Your task to perform on an android device: Clear the shopping cart on costco. Add razer deathadder to the cart on costco, then select checkout. Image 0: 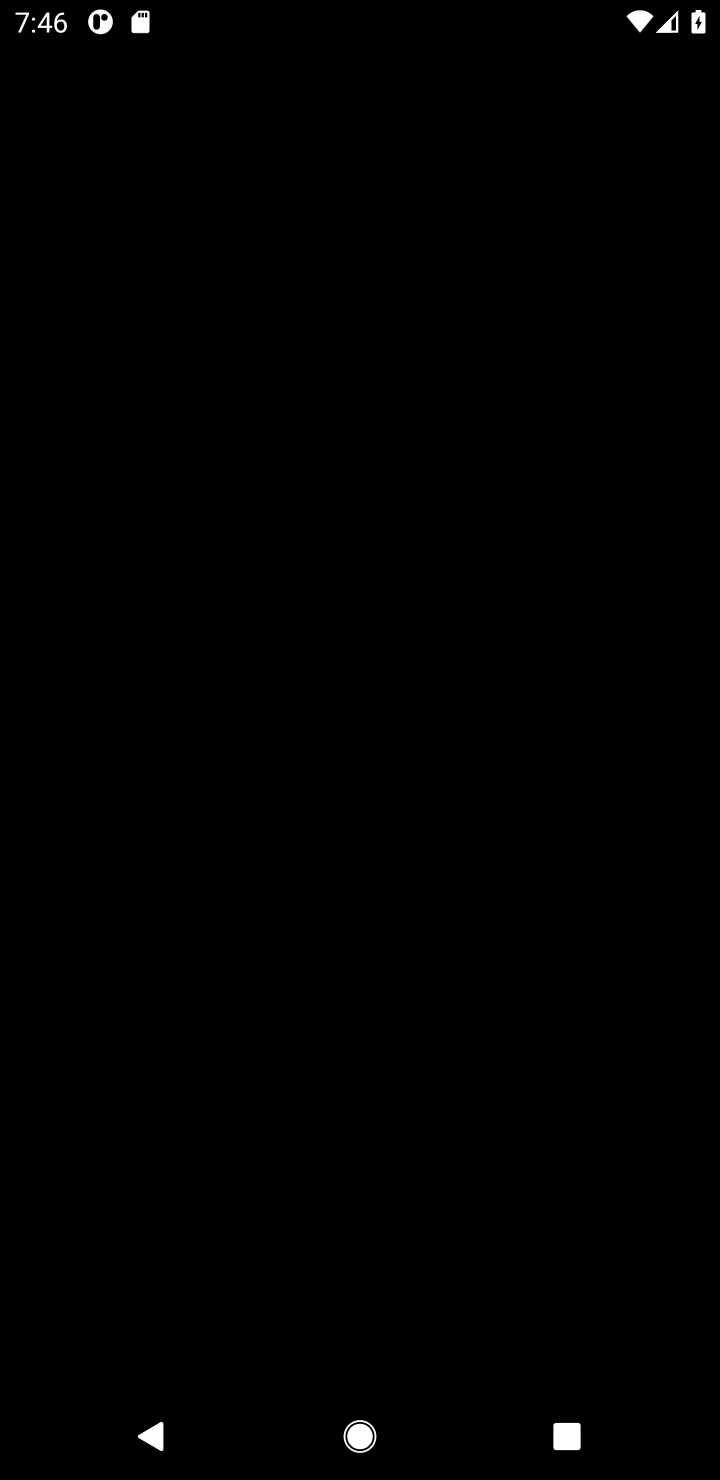
Step 0: press home button
Your task to perform on an android device: Clear the shopping cart on costco. Add razer deathadder to the cart on costco, then select checkout. Image 1: 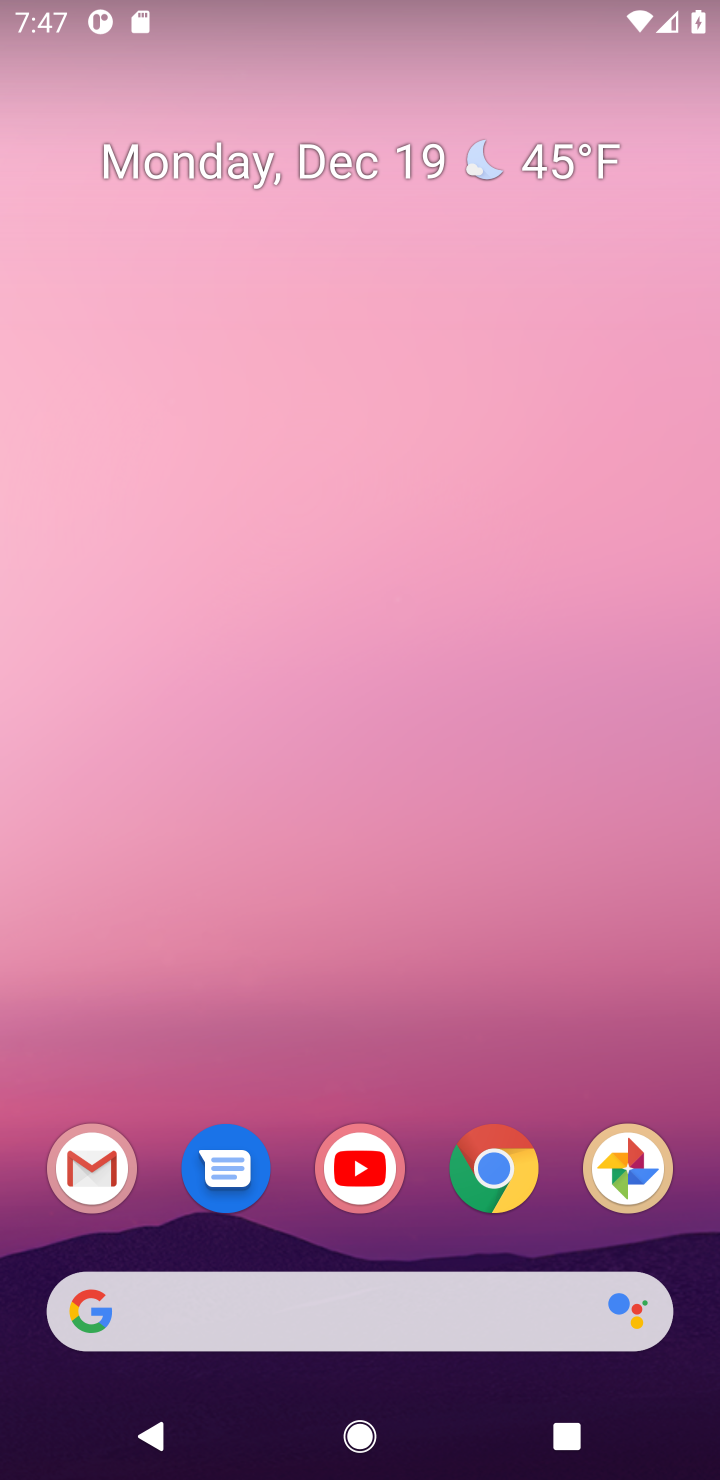
Step 1: click (497, 1171)
Your task to perform on an android device: Clear the shopping cart on costco. Add razer deathadder to the cart on costco, then select checkout. Image 2: 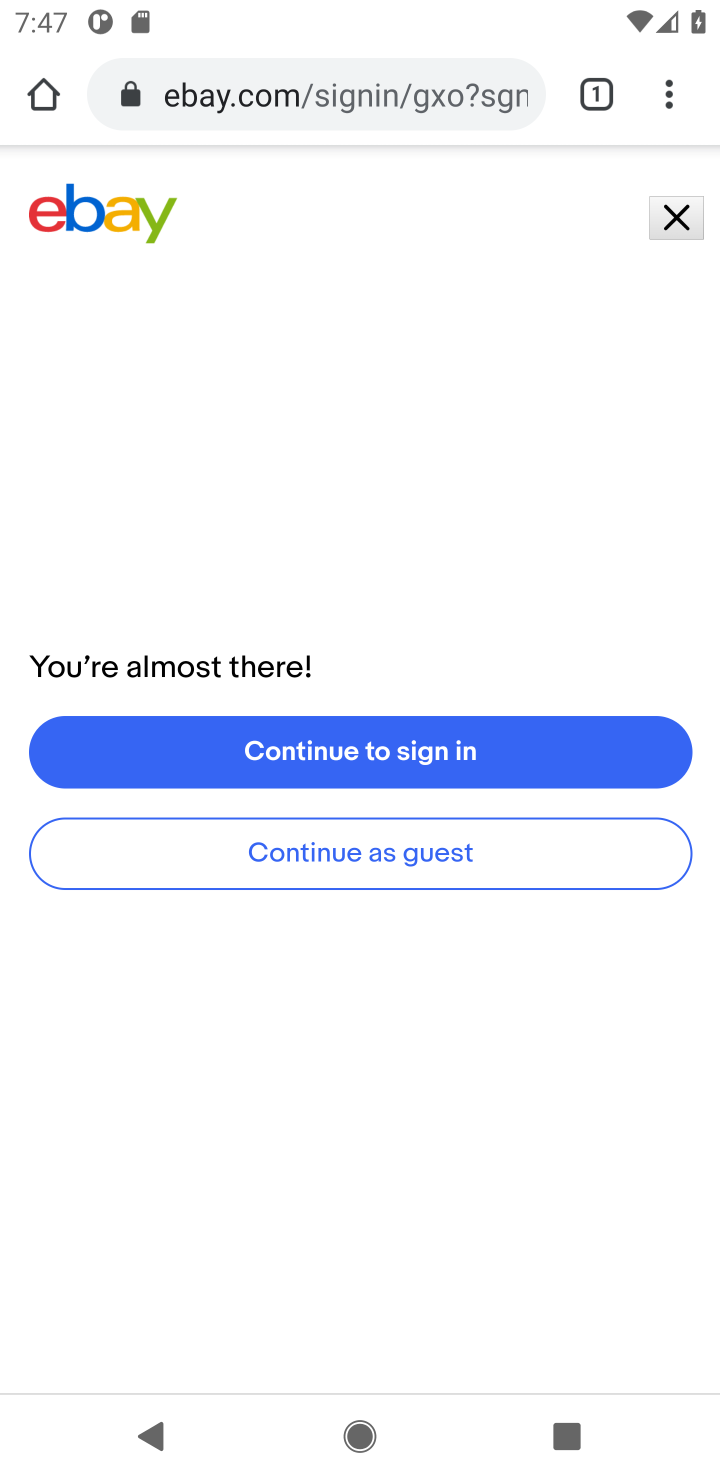
Step 2: click (249, 98)
Your task to perform on an android device: Clear the shopping cart on costco. Add razer deathadder to the cart on costco, then select checkout. Image 3: 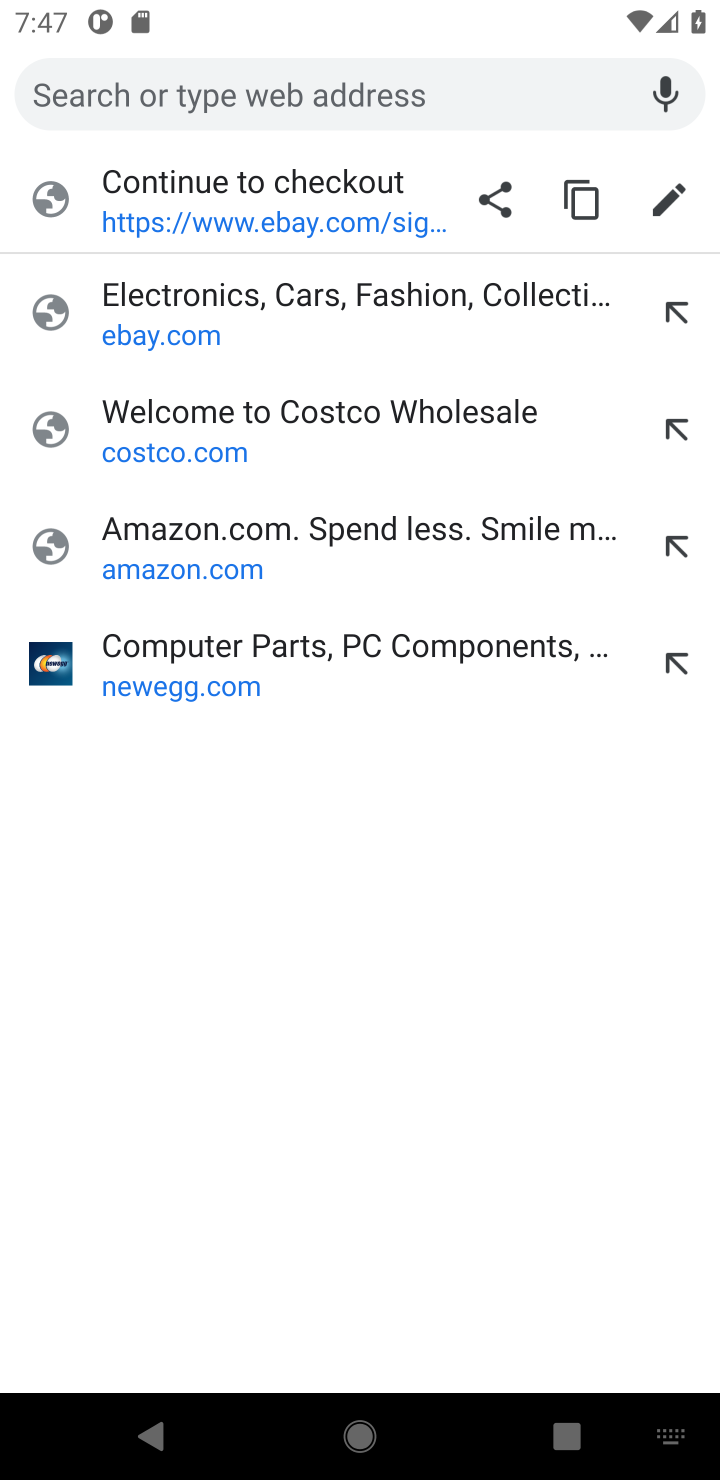
Step 3: click (138, 445)
Your task to perform on an android device: Clear the shopping cart on costco. Add razer deathadder to the cart on costco, then select checkout. Image 4: 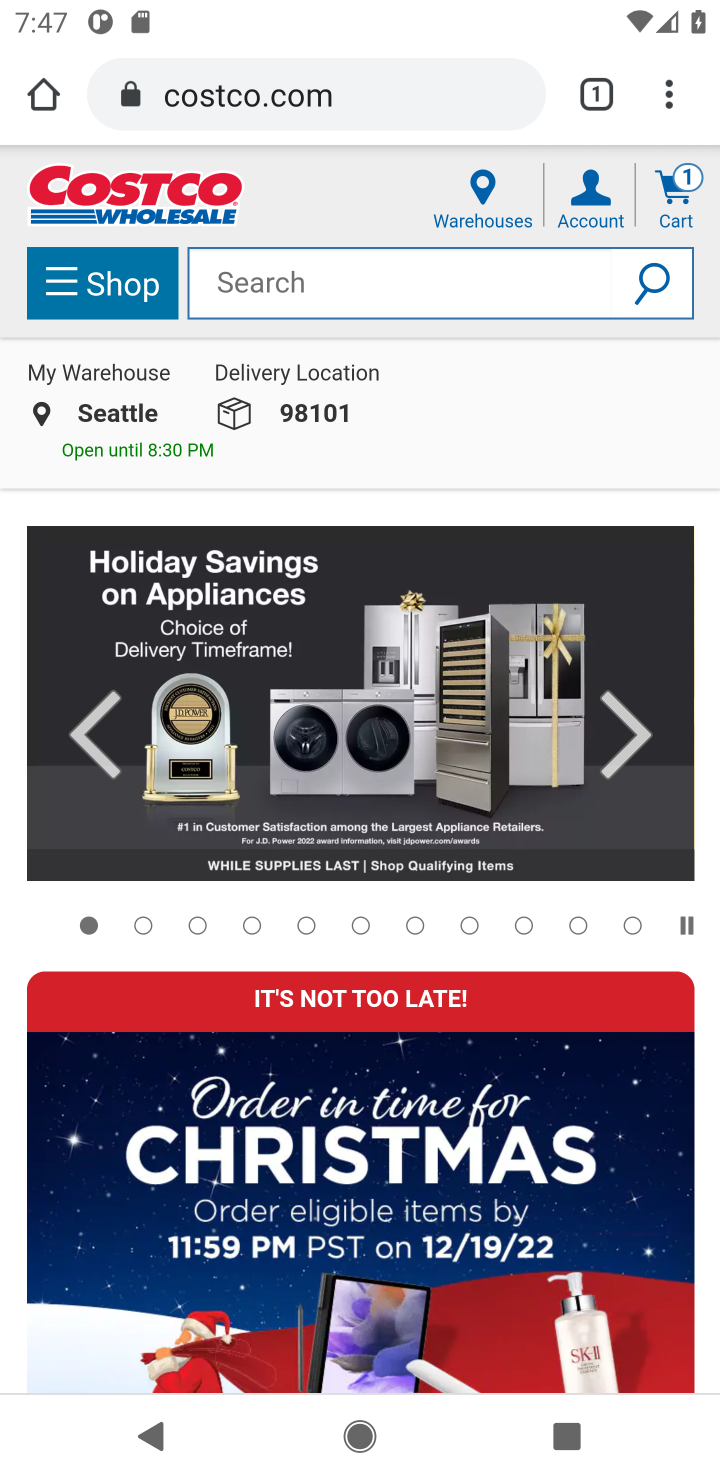
Step 4: click (670, 196)
Your task to perform on an android device: Clear the shopping cart on costco. Add razer deathadder to the cart on costco, then select checkout. Image 5: 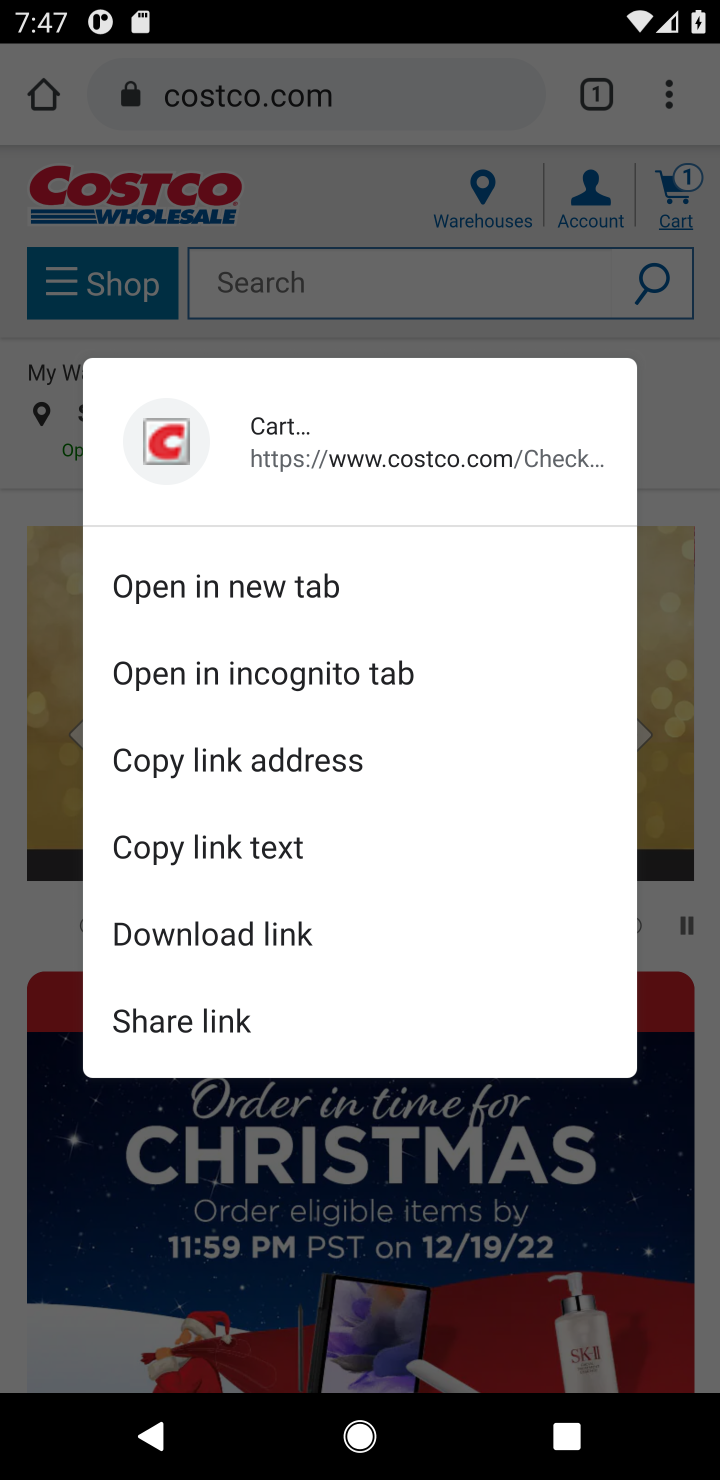
Step 5: click (673, 191)
Your task to perform on an android device: Clear the shopping cart on costco. Add razer deathadder to the cart on costco, then select checkout. Image 6: 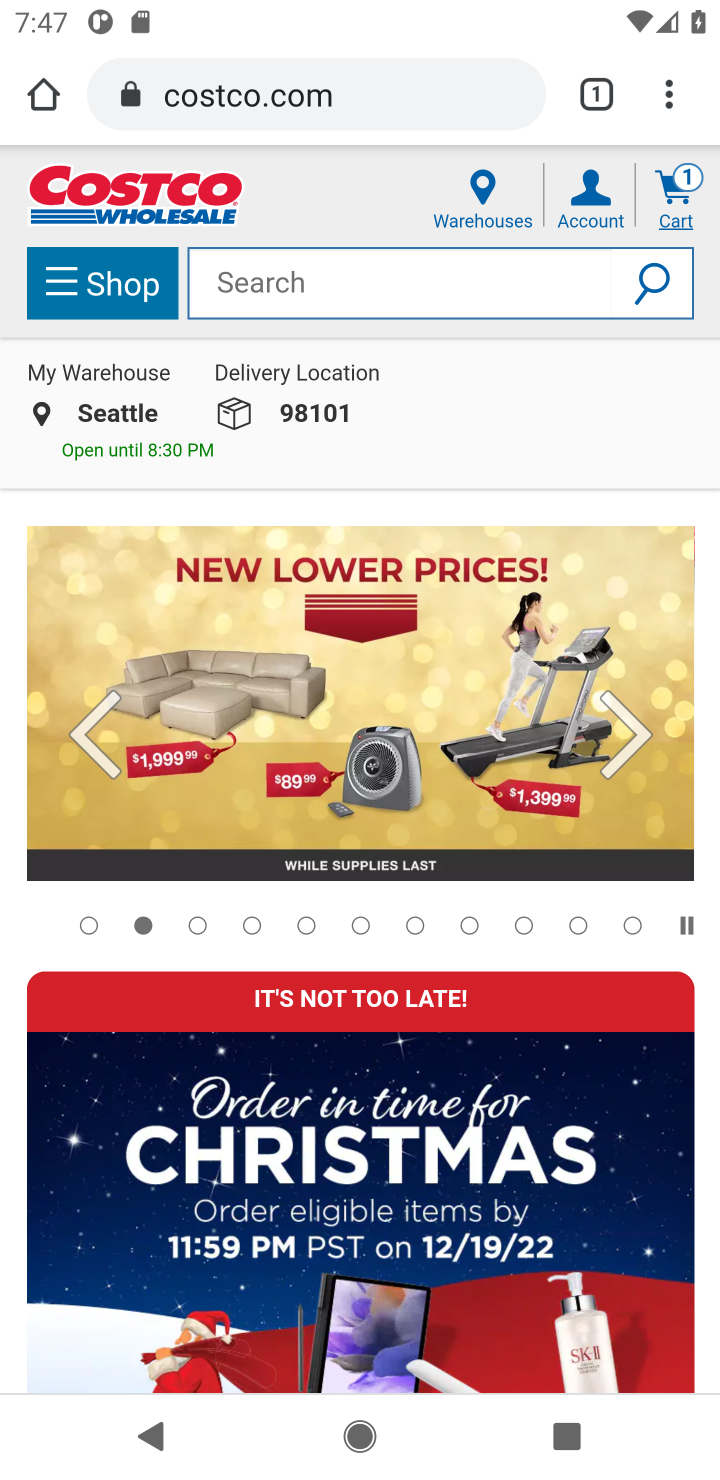
Step 6: click (670, 198)
Your task to perform on an android device: Clear the shopping cart on costco. Add razer deathadder to the cart on costco, then select checkout. Image 7: 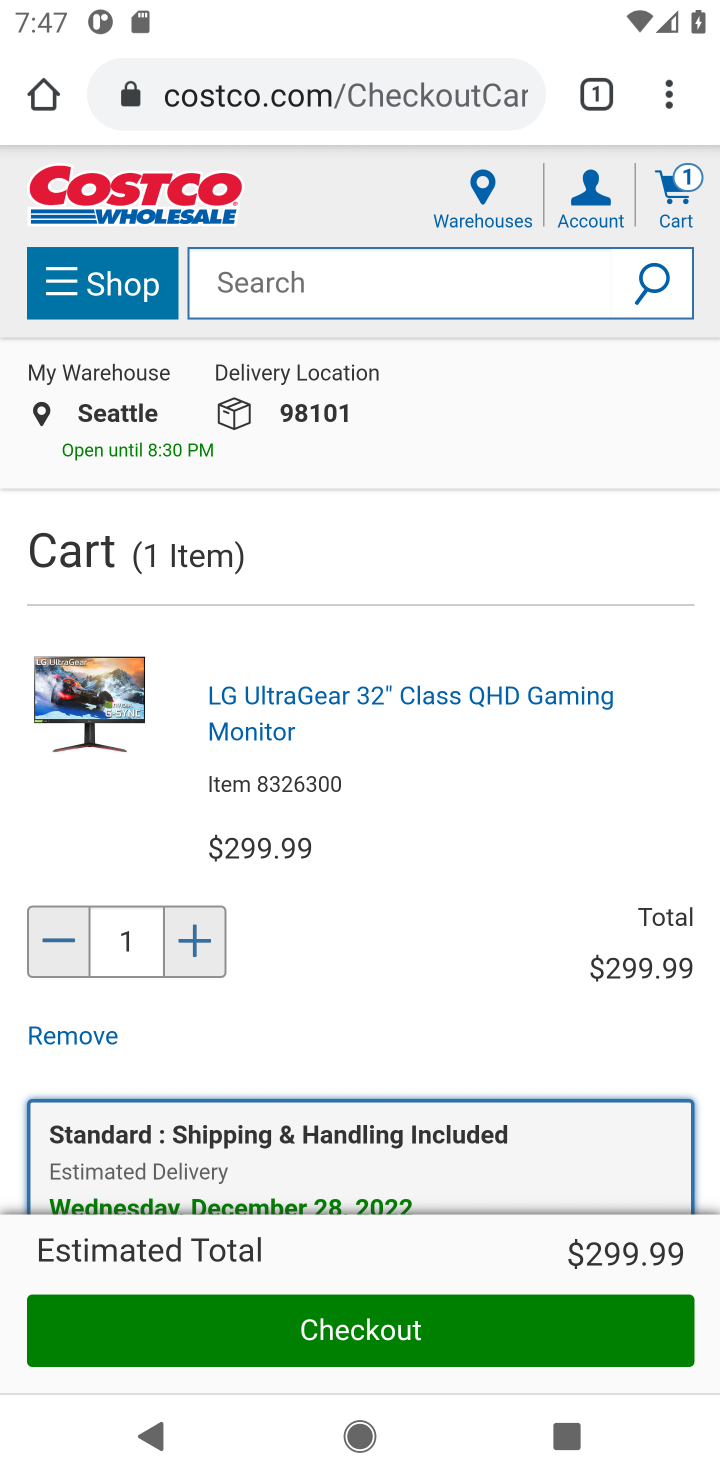
Step 7: drag from (223, 1008) to (231, 526)
Your task to perform on an android device: Clear the shopping cart on costco. Add razer deathadder to the cart on costco, then select checkout. Image 8: 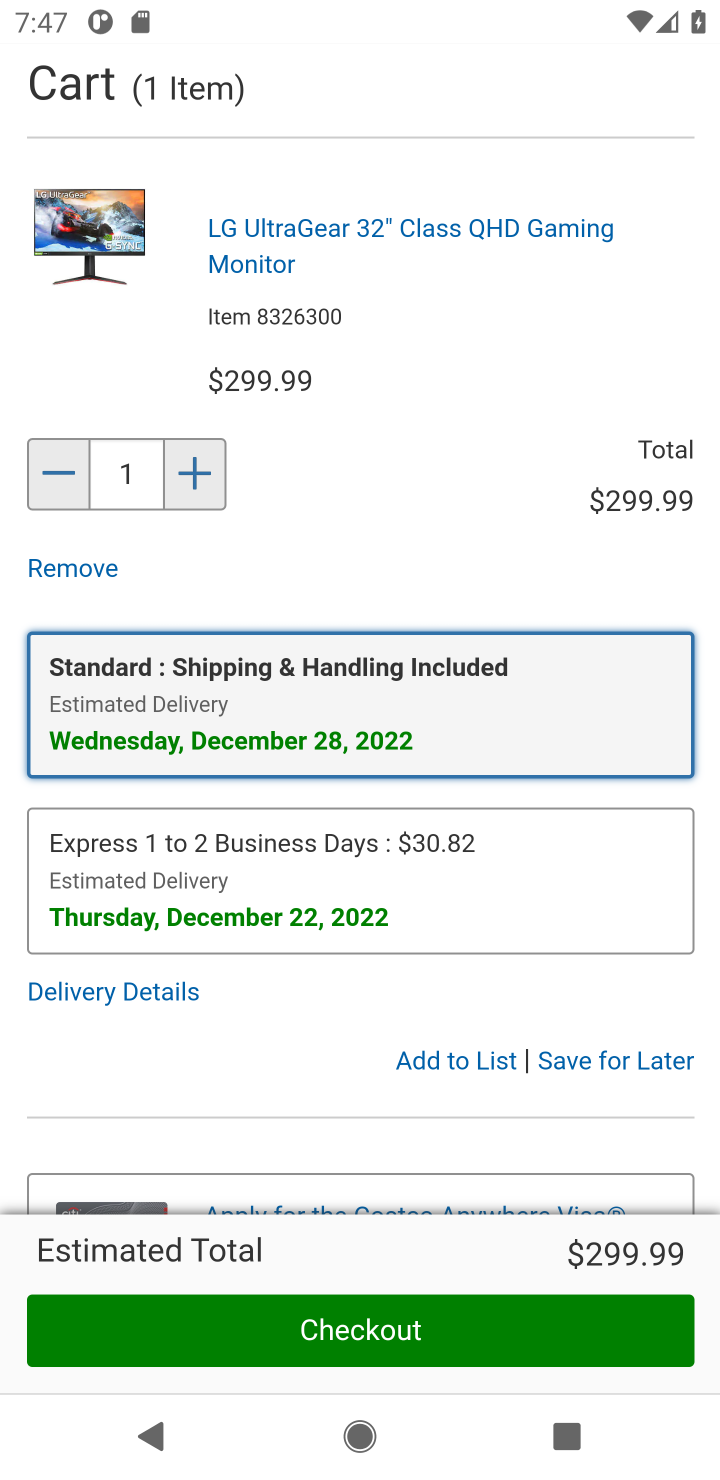
Step 8: click (590, 1063)
Your task to perform on an android device: Clear the shopping cart on costco. Add razer deathadder to the cart on costco, then select checkout. Image 9: 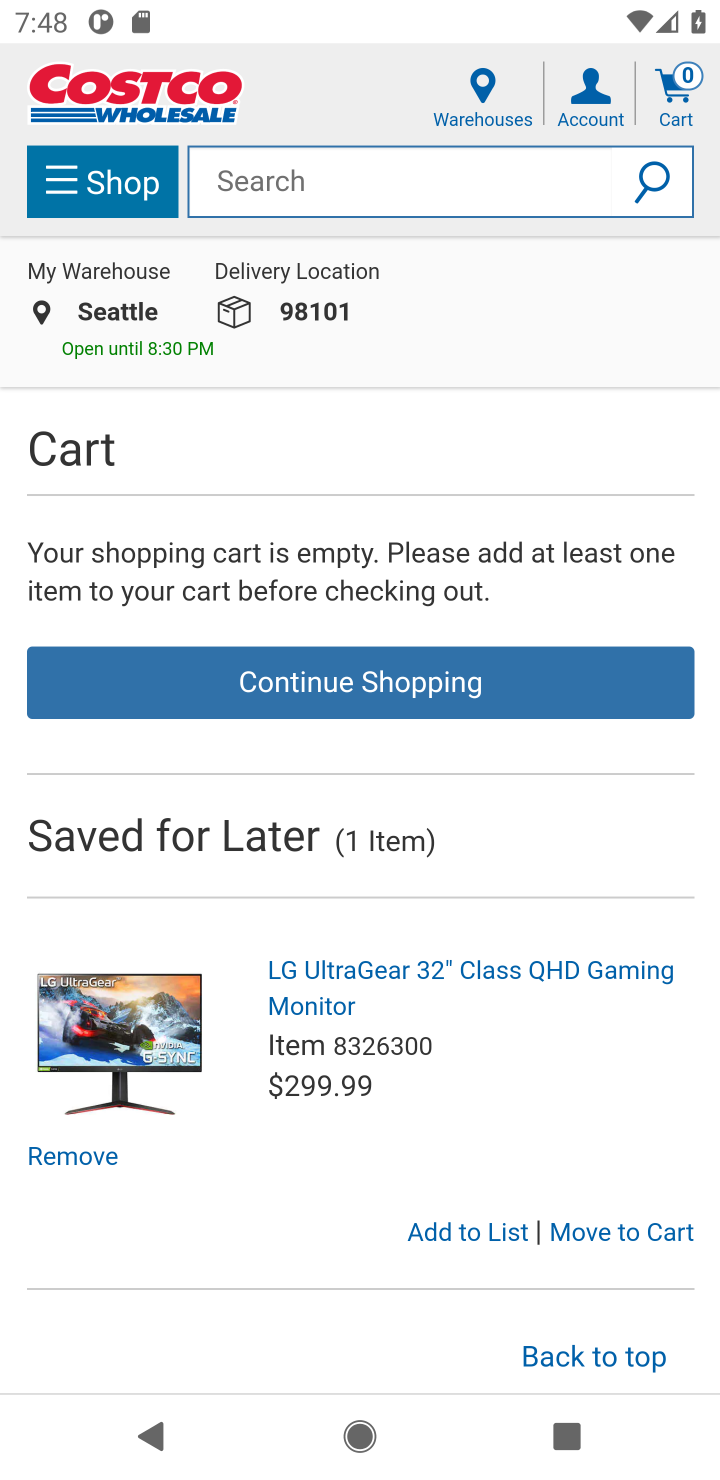
Step 9: click (283, 190)
Your task to perform on an android device: Clear the shopping cart on costco. Add razer deathadder to the cart on costco, then select checkout. Image 10: 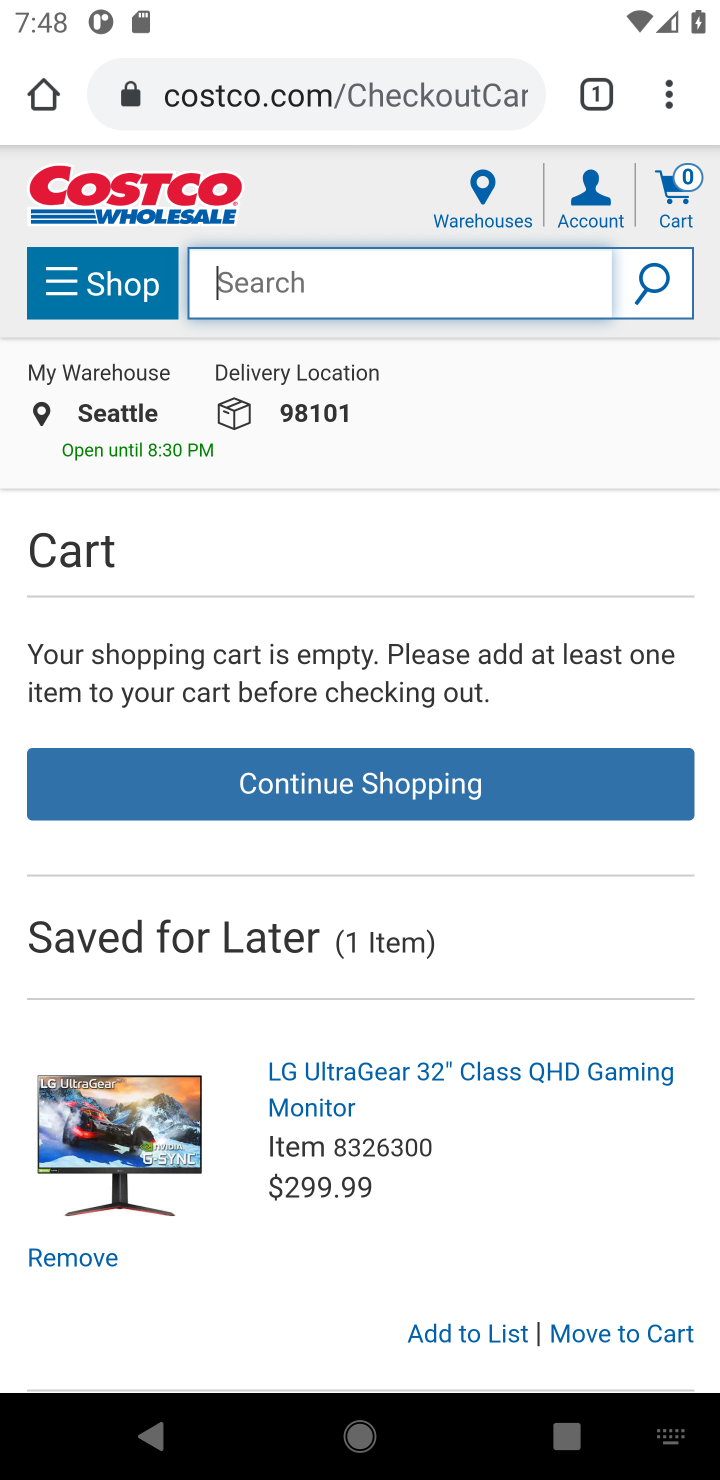
Step 10: type "razer deathadder"
Your task to perform on an android device: Clear the shopping cart on costco. Add razer deathadder to the cart on costco, then select checkout. Image 11: 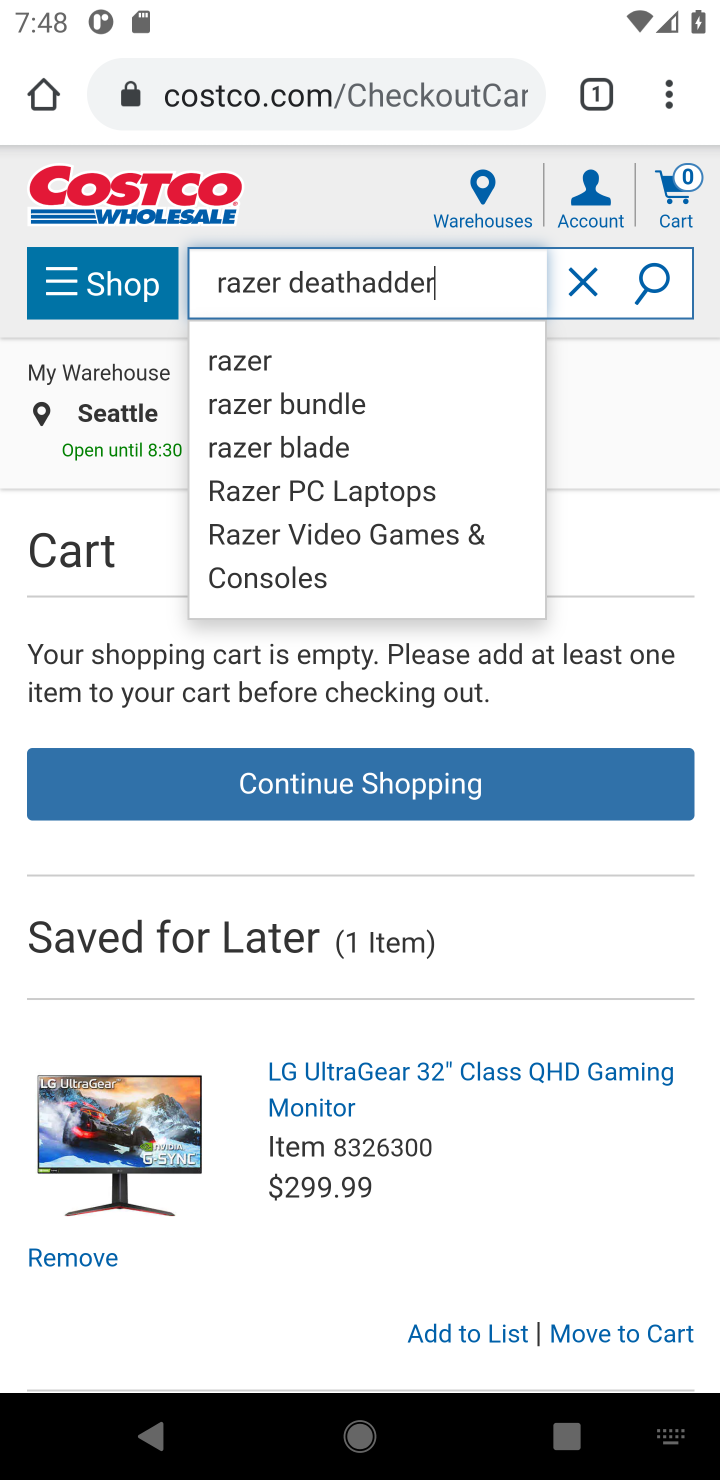
Step 11: click (651, 283)
Your task to perform on an android device: Clear the shopping cart on costco. Add razer deathadder to the cart on costco, then select checkout. Image 12: 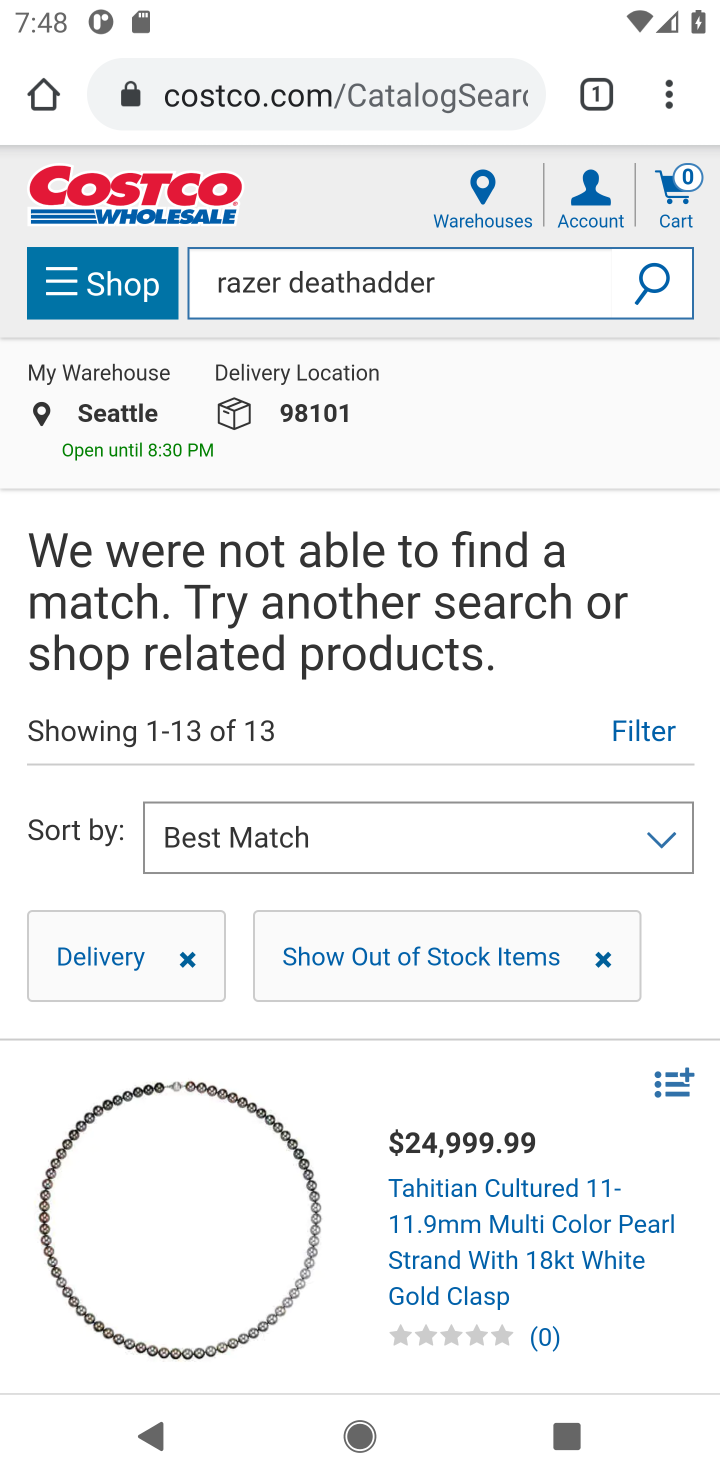
Step 12: task complete